Your task to perform on an android device: What's the weather like in Rio de Janeiro? Image 0: 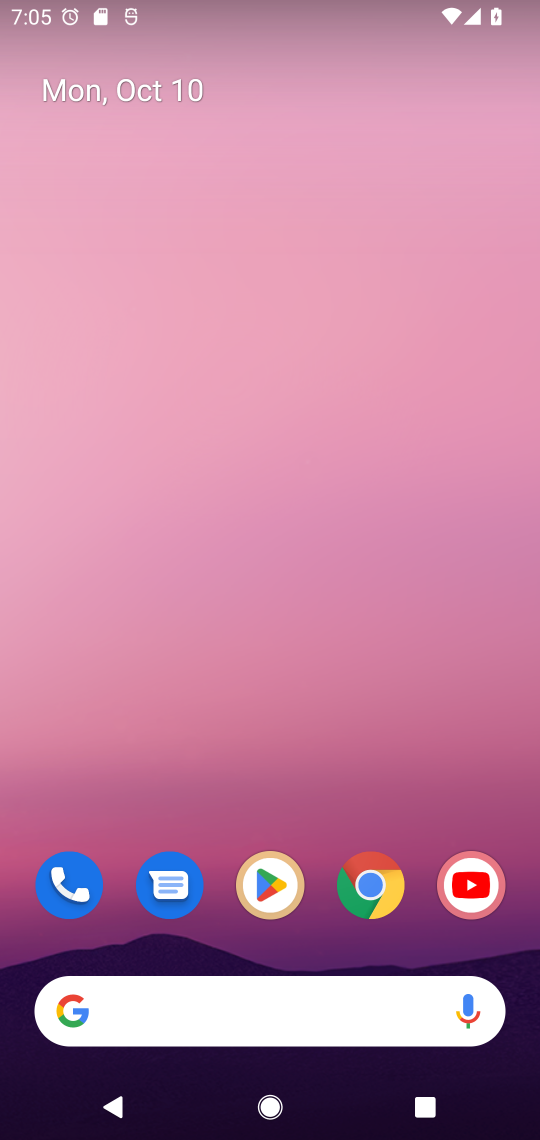
Step 0: click (374, 889)
Your task to perform on an android device: What's the weather like in Rio de Janeiro? Image 1: 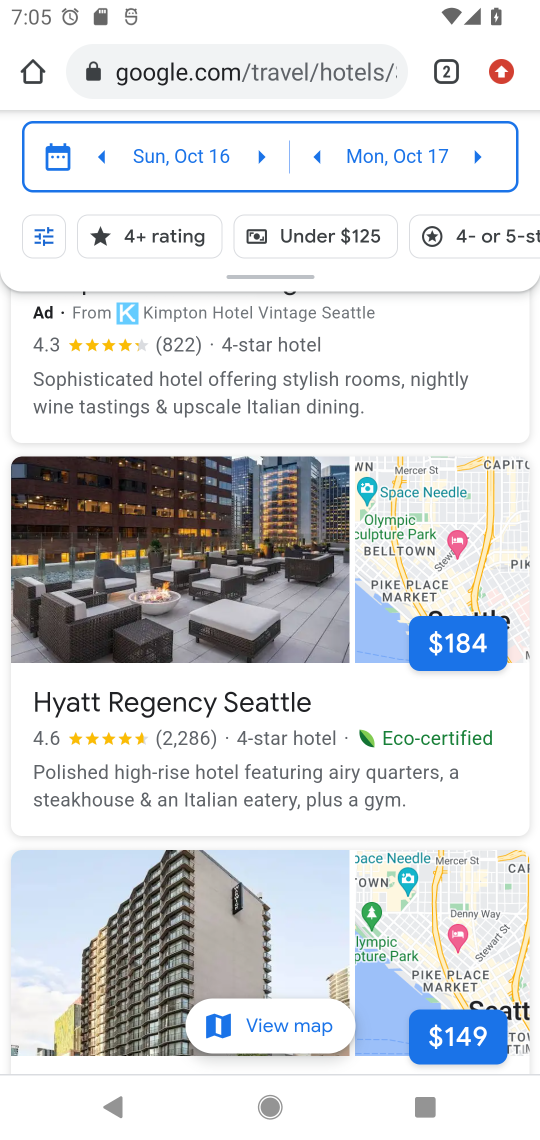
Step 1: click (163, 64)
Your task to perform on an android device: What's the weather like in Rio de Janeiro? Image 2: 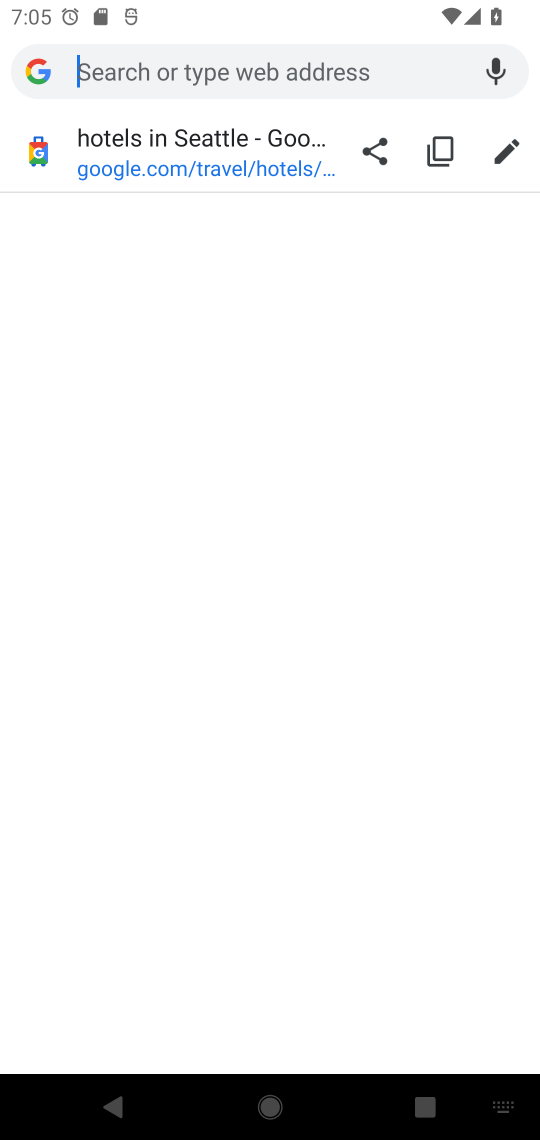
Step 2: click (309, 63)
Your task to perform on an android device: What's the weather like in Rio de Janeiro? Image 3: 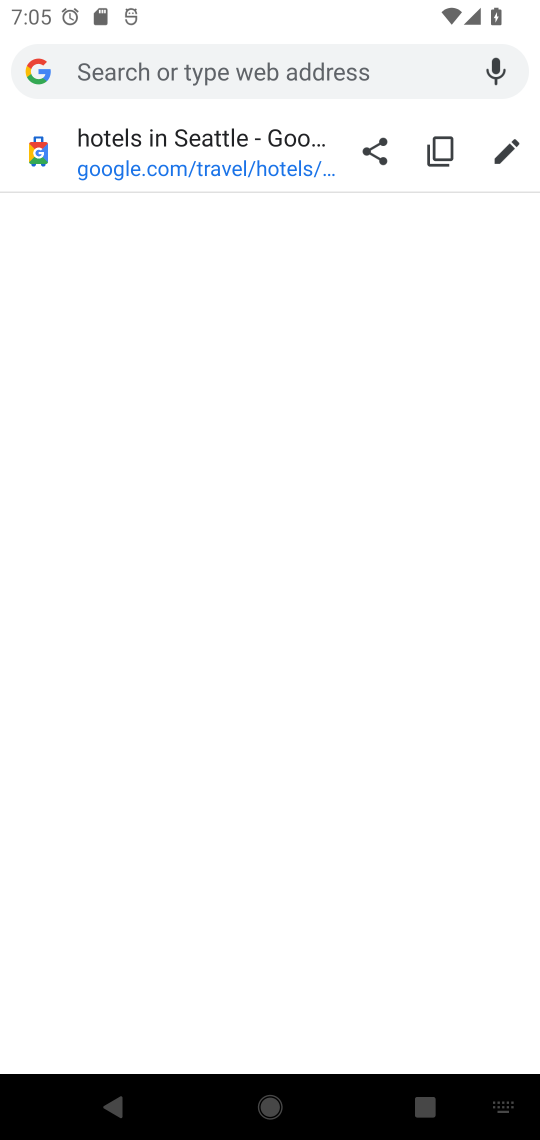
Step 3: type "weather like in Rio de Janeiro"
Your task to perform on an android device: What's the weather like in Rio de Janeiro? Image 4: 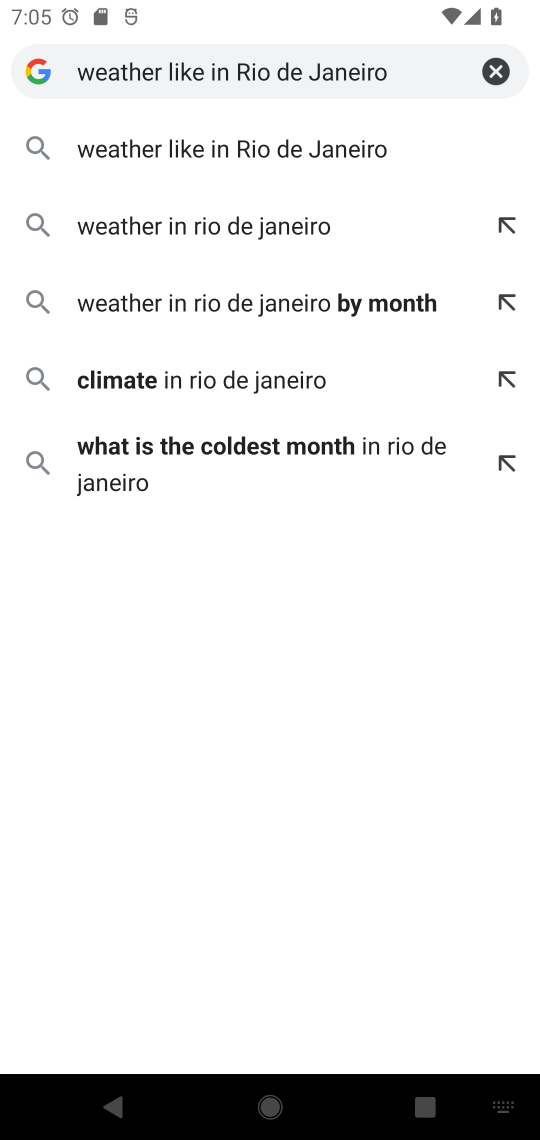
Step 4: click (240, 156)
Your task to perform on an android device: What's the weather like in Rio de Janeiro? Image 5: 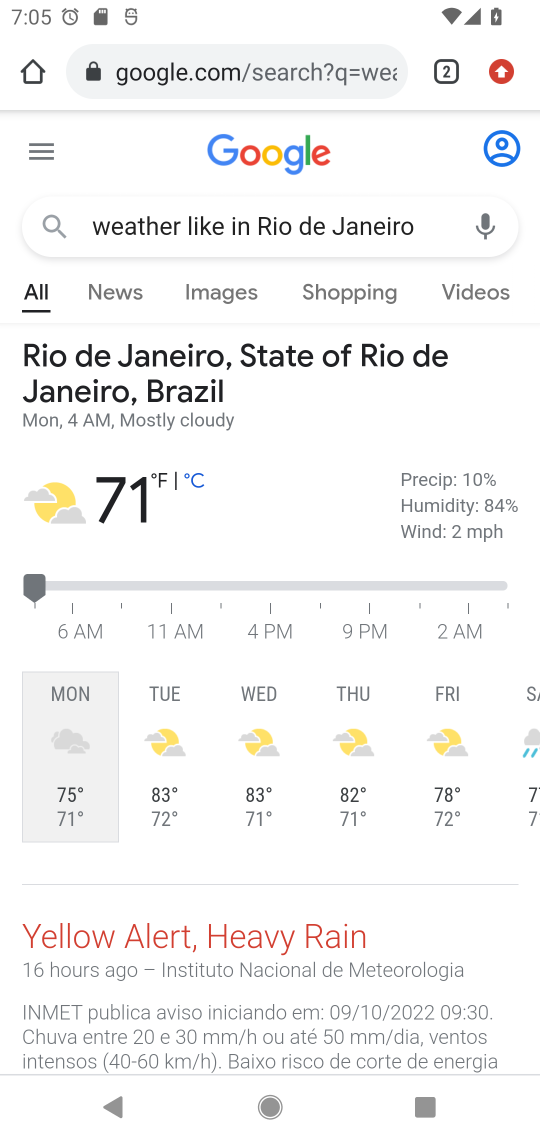
Step 5: task complete